Your task to perform on an android device: set default search engine in the chrome app Image 0: 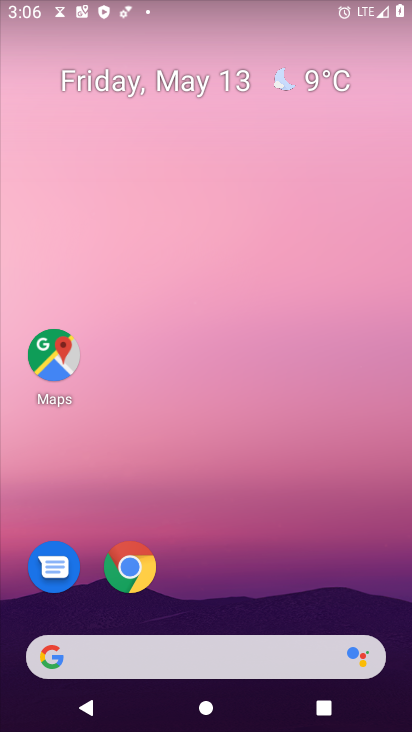
Step 0: click (133, 571)
Your task to perform on an android device: set default search engine in the chrome app Image 1: 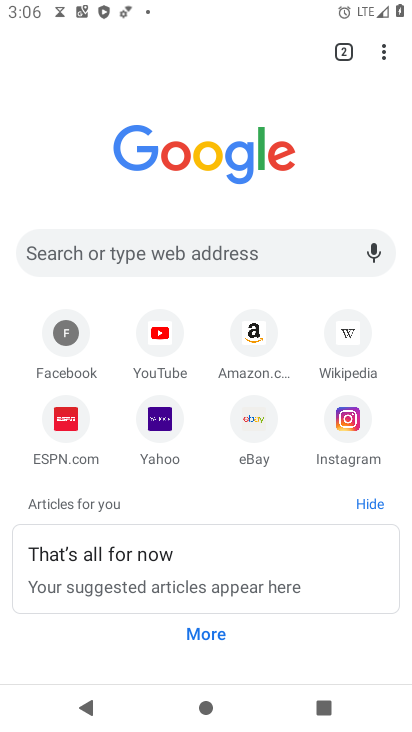
Step 1: drag from (386, 48) to (190, 439)
Your task to perform on an android device: set default search engine in the chrome app Image 2: 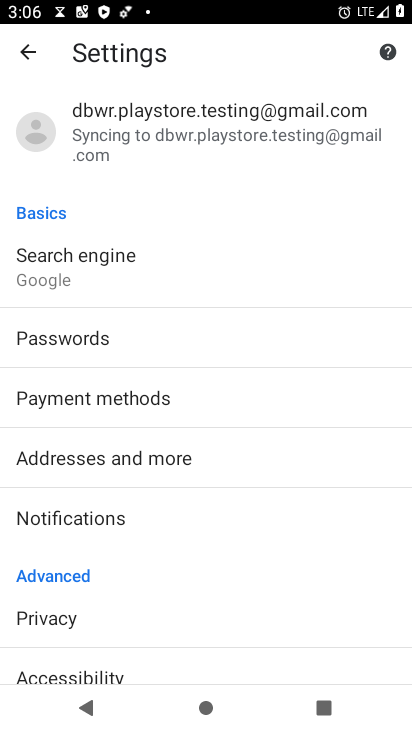
Step 2: click (56, 263)
Your task to perform on an android device: set default search engine in the chrome app Image 3: 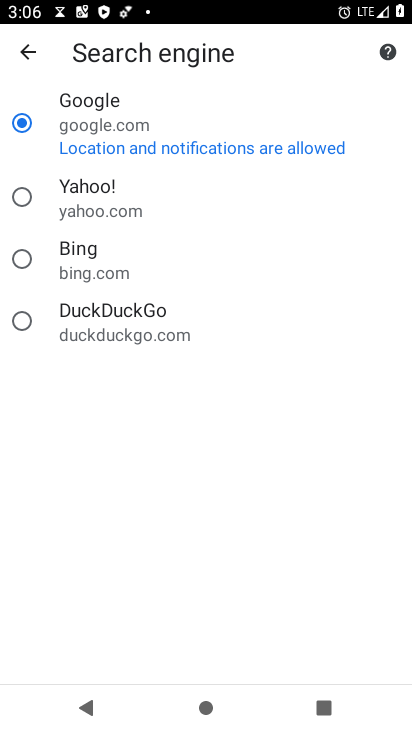
Step 3: click (17, 195)
Your task to perform on an android device: set default search engine in the chrome app Image 4: 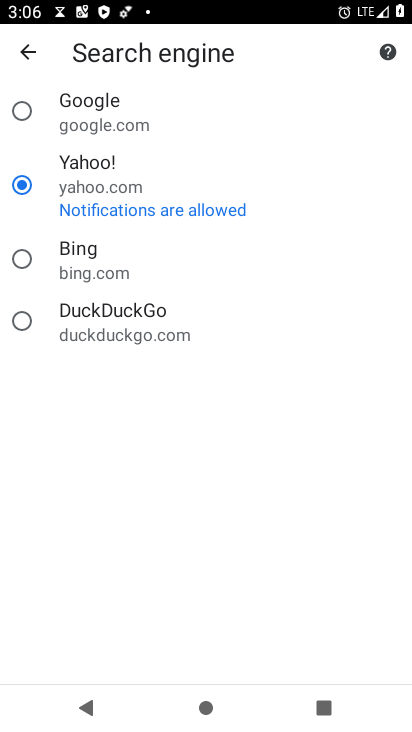
Step 4: task complete